Your task to perform on an android device: make emails show in primary in the gmail app Image 0: 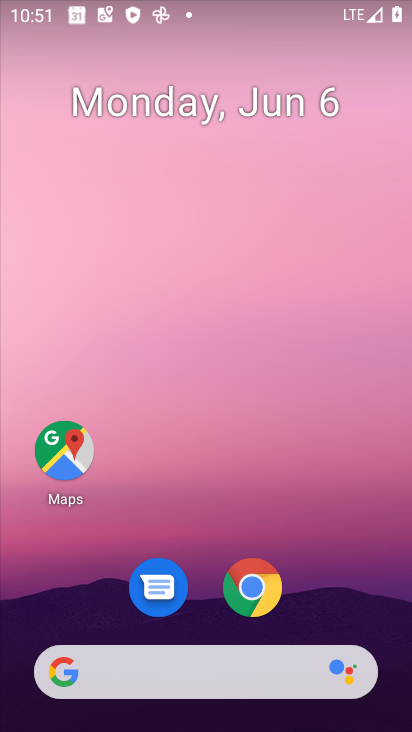
Step 0: drag from (94, 656) to (223, 19)
Your task to perform on an android device: make emails show in primary in the gmail app Image 1: 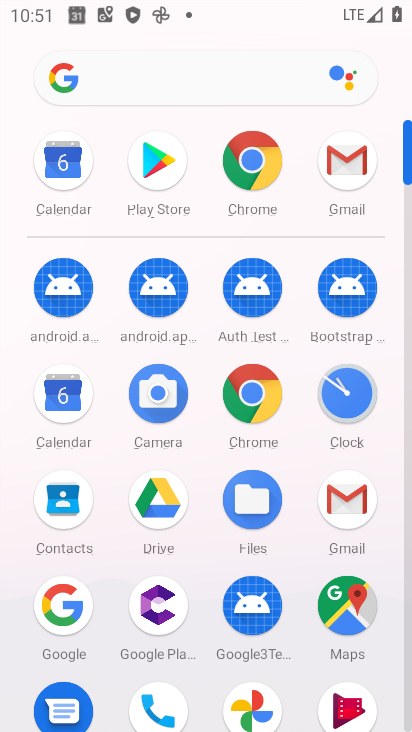
Step 1: click (357, 514)
Your task to perform on an android device: make emails show in primary in the gmail app Image 2: 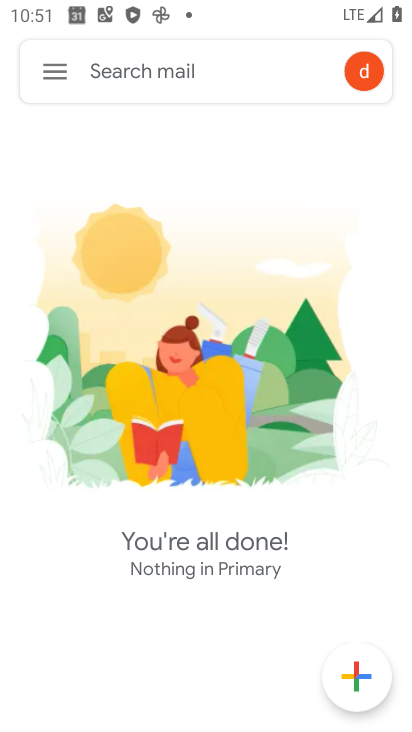
Step 2: click (49, 78)
Your task to perform on an android device: make emails show in primary in the gmail app Image 3: 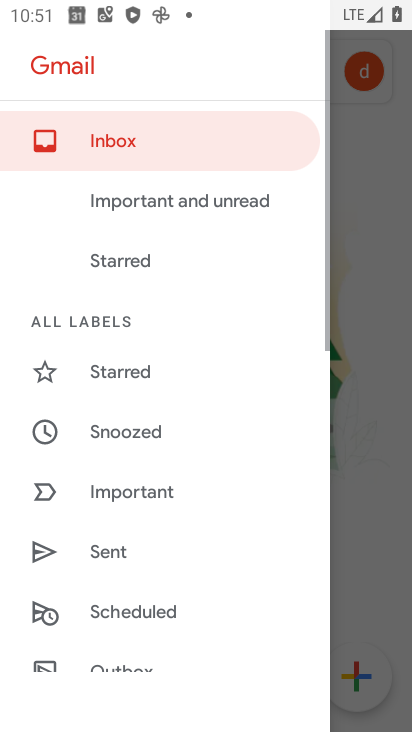
Step 3: drag from (177, 623) to (234, 2)
Your task to perform on an android device: make emails show in primary in the gmail app Image 4: 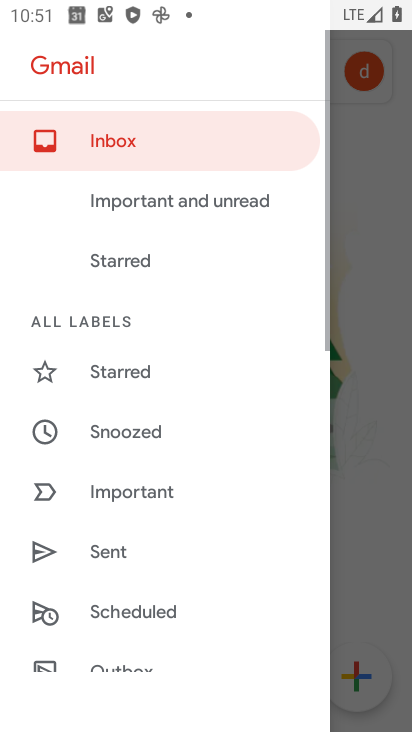
Step 4: drag from (124, 519) to (221, 42)
Your task to perform on an android device: make emails show in primary in the gmail app Image 5: 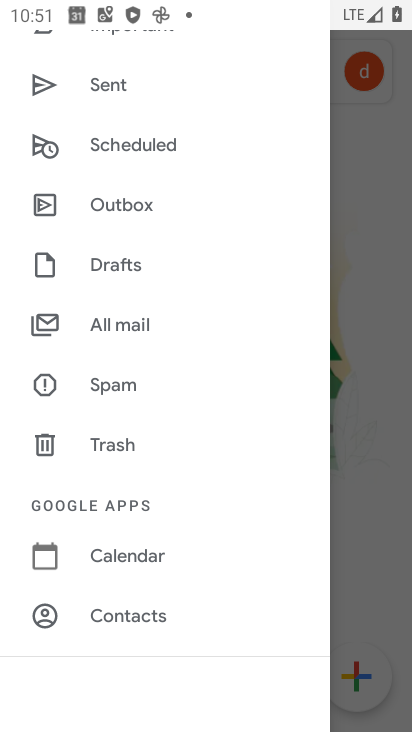
Step 5: drag from (132, 559) to (280, 40)
Your task to perform on an android device: make emails show in primary in the gmail app Image 6: 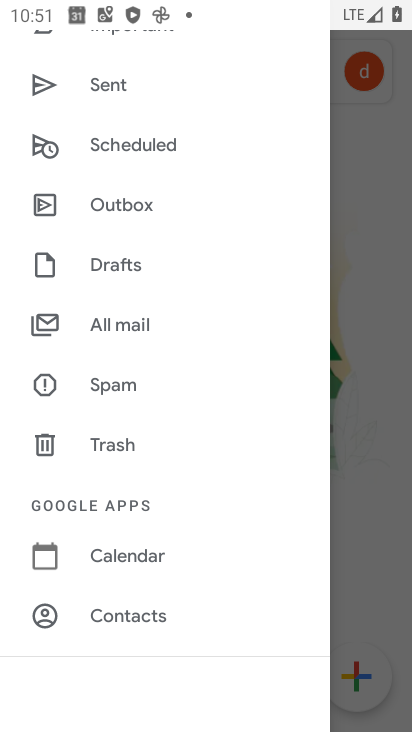
Step 6: drag from (116, 597) to (203, 6)
Your task to perform on an android device: make emails show in primary in the gmail app Image 7: 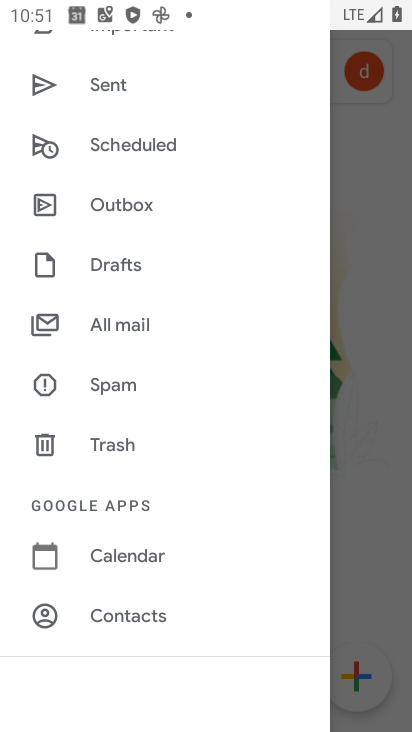
Step 7: drag from (111, 500) to (239, 0)
Your task to perform on an android device: make emails show in primary in the gmail app Image 8: 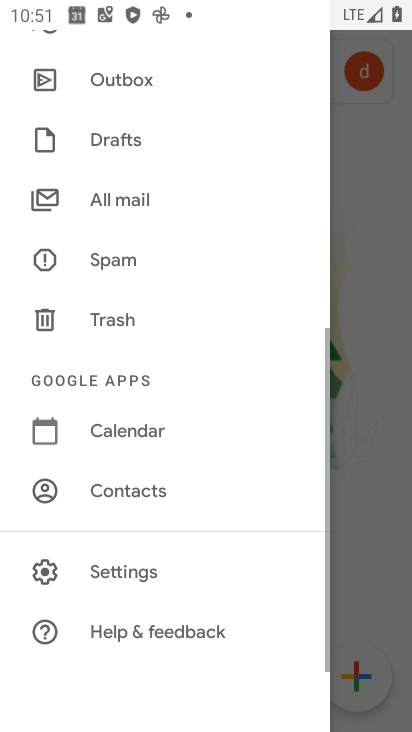
Step 8: click (128, 569)
Your task to perform on an android device: make emails show in primary in the gmail app Image 9: 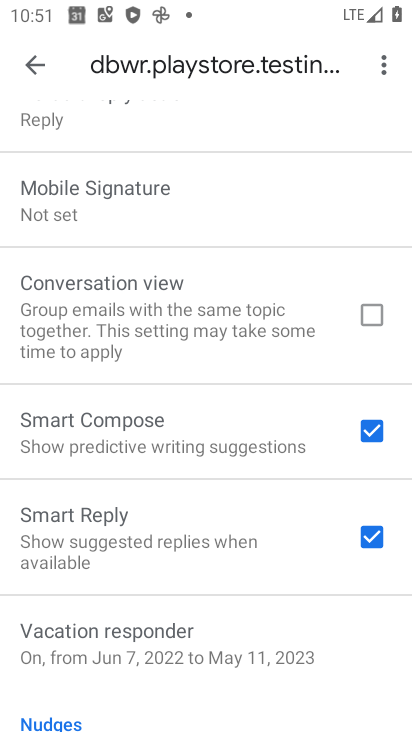
Step 9: drag from (223, 174) to (243, 666)
Your task to perform on an android device: make emails show in primary in the gmail app Image 10: 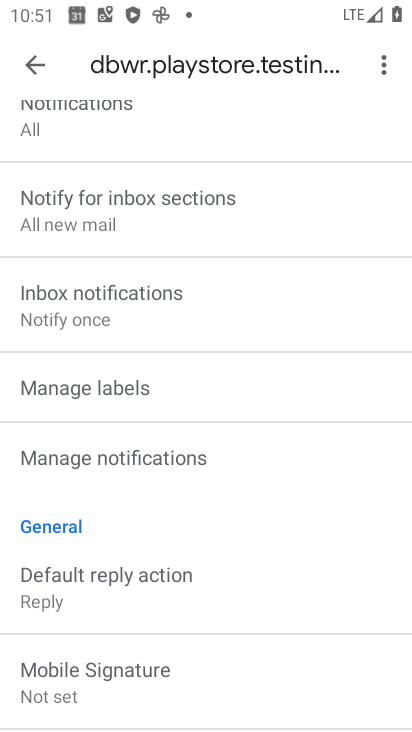
Step 10: drag from (299, 217) to (276, 587)
Your task to perform on an android device: make emails show in primary in the gmail app Image 11: 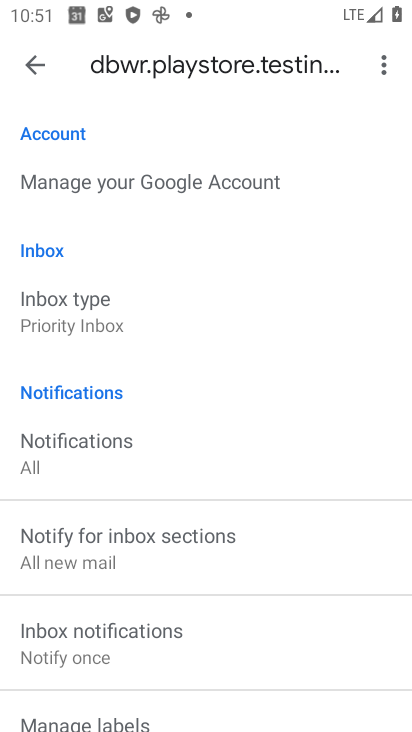
Step 11: click (108, 324)
Your task to perform on an android device: make emails show in primary in the gmail app Image 12: 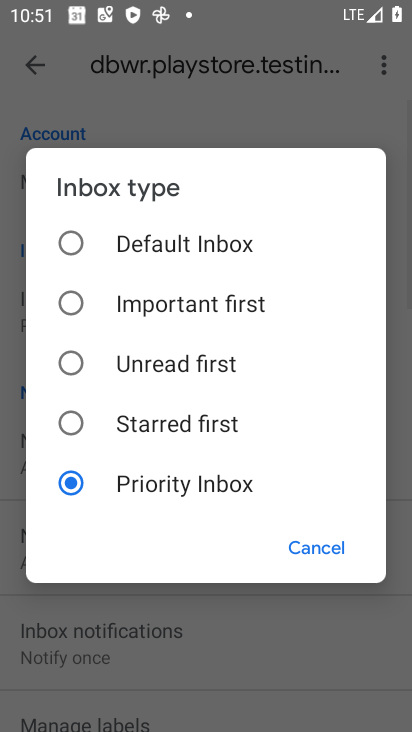
Step 12: click (161, 248)
Your task to perform on an android device: make emails show in primary in the gmail app Image 13: 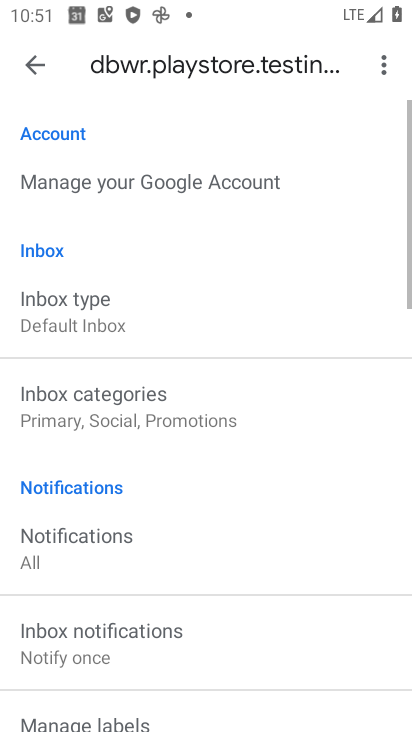
Step 13: click (140, 413)
Your task to perform on an android device: make emails show in primary in the gmail app Image 14: 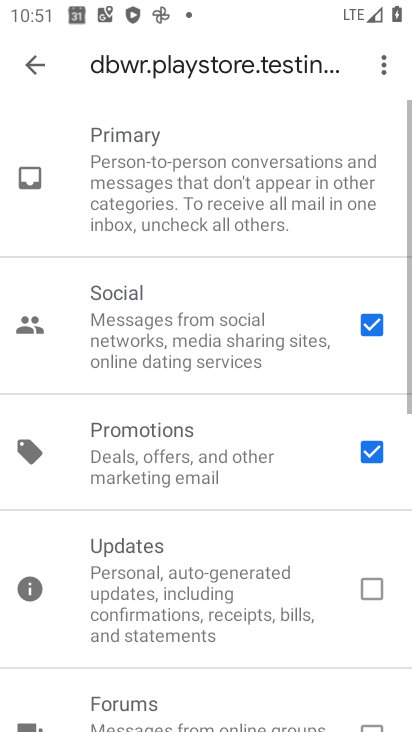
Step 14: click (372, 451)
Your task to perform on an android device: make emails show in primary in the gmail app Image 15: 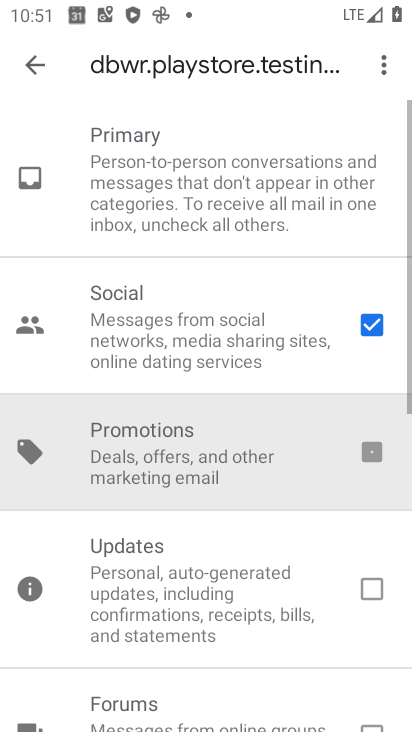
Step 15: click (371, 323)
Your task to perform on an android device: make emails show in primary in the gmail app Image 16: 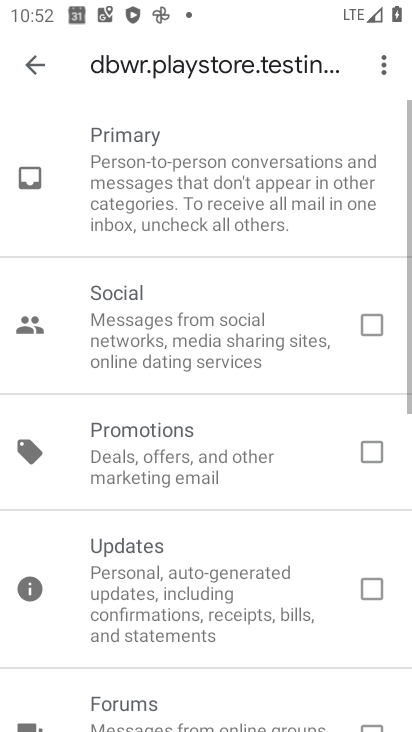
Step 16: task complete